Your task to perform on an android device: turn on wifi Image 0: 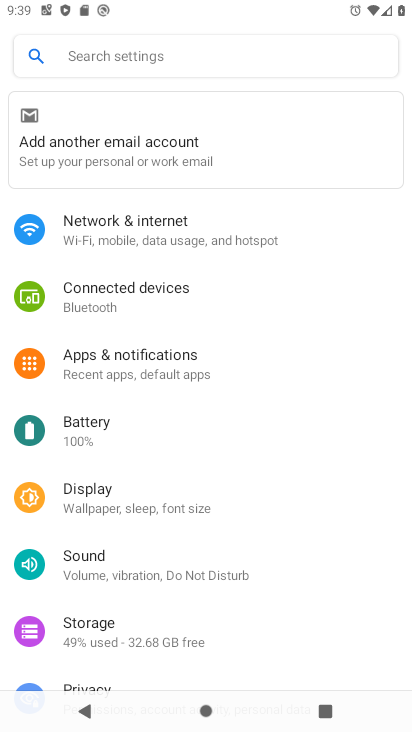
Step 0: press back button
Your task to perform on an android device: turn on wifi Image 1: 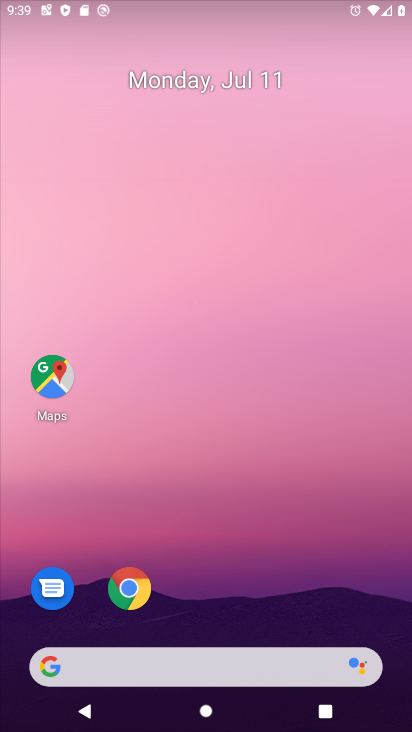
Step 1: task complete